Your task to perform on an android device: change the clock display to show seconds Image 0: 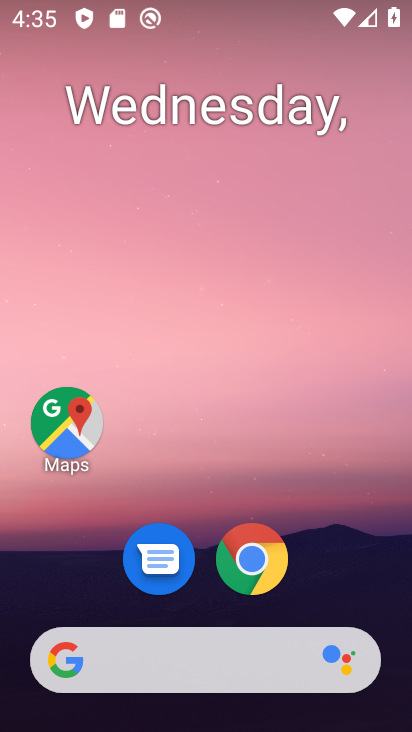
Step 0: drag from (392, 617) to (228, 5)
Your task to perform on an android device: change the clock display to show seconds Image 1: 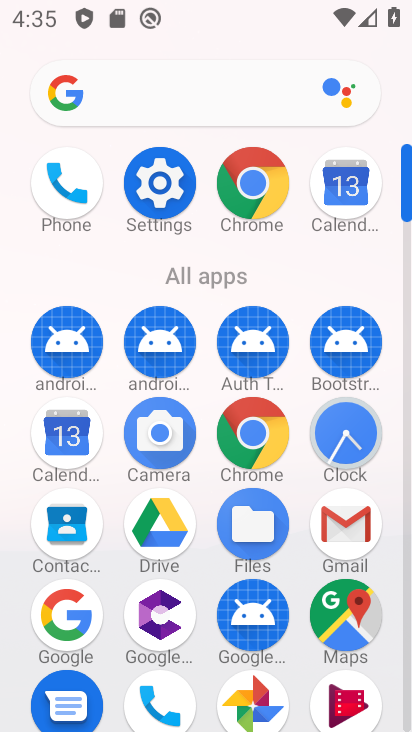
Step 1: click (334, 447)
Your task to perform on an android device: change the clock display to show seconds Image 2: 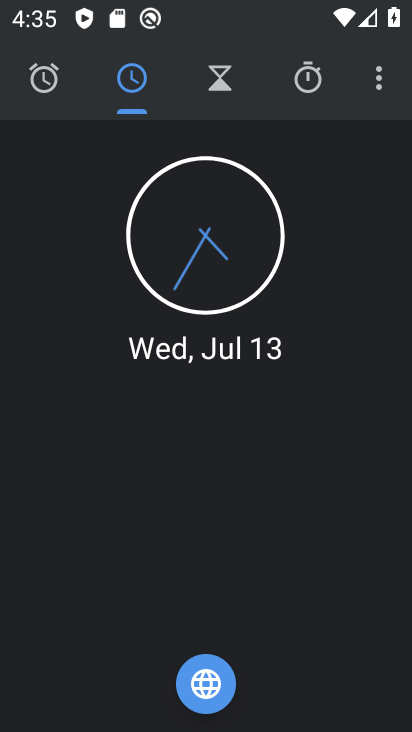
Step 2: click (387, 81)
Your task to perform on an android device: change the clock display to show seconds Image 3: 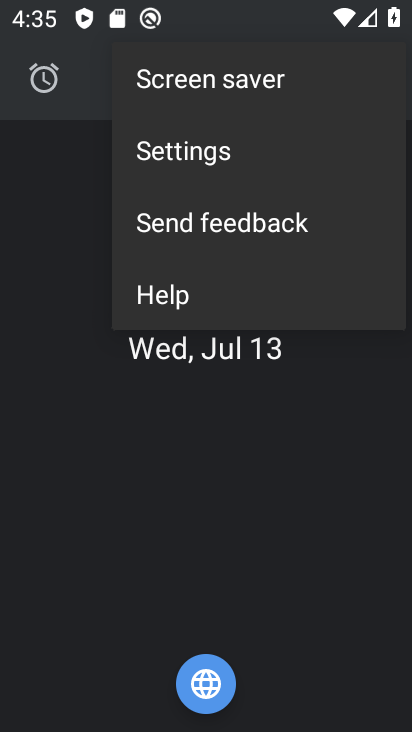
Step 3: click (295, 174)
Your task to perform on an android device: change the clock display to show seconds Image 4: 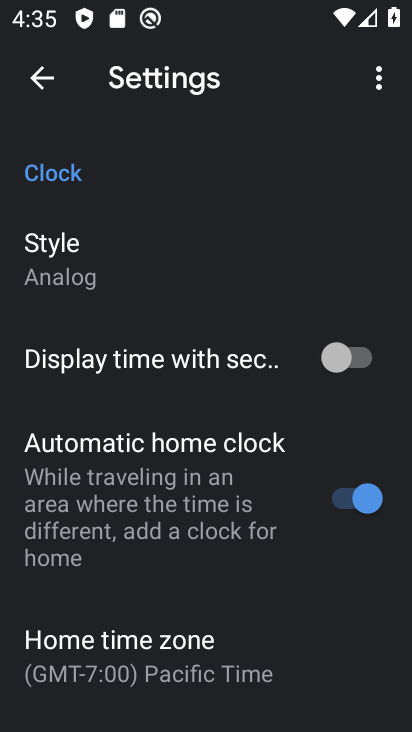
Step 4: click (357, 357)
Your task to perform on an android device: change the clock display to show seconds Image 5: 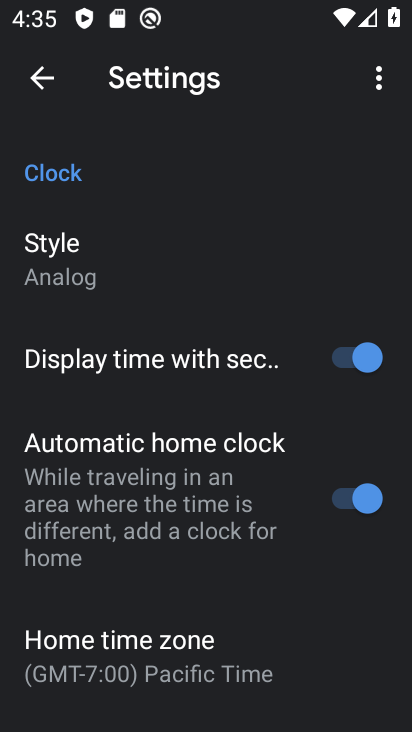
Step 5: task complete